Your task to perform on an android device: open app "Skype" (install if not already installed) and go to login screen Image 0: 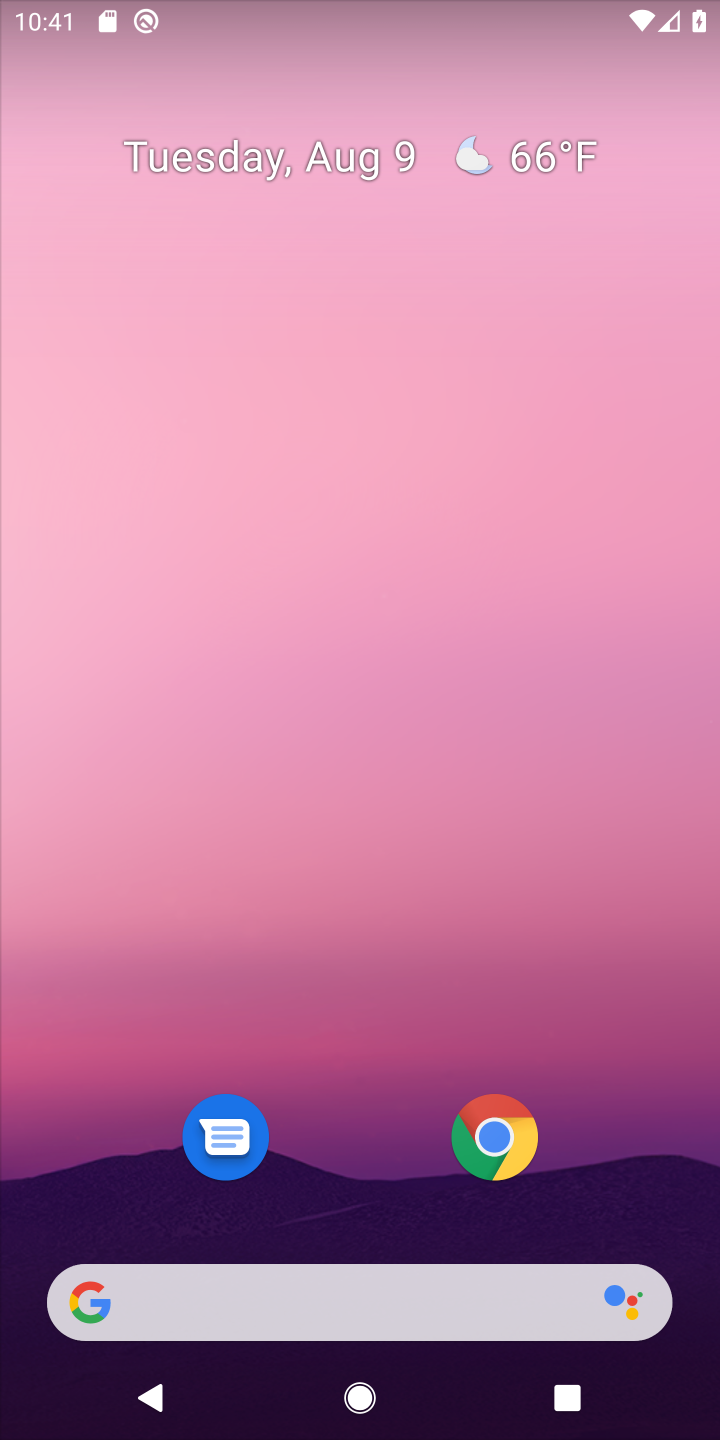
Step 0: drag from (368, 822) to (316, 103)
Your task to perform on an android device: open app "Skype" (install if not already installed) and go to login screen Image 1: 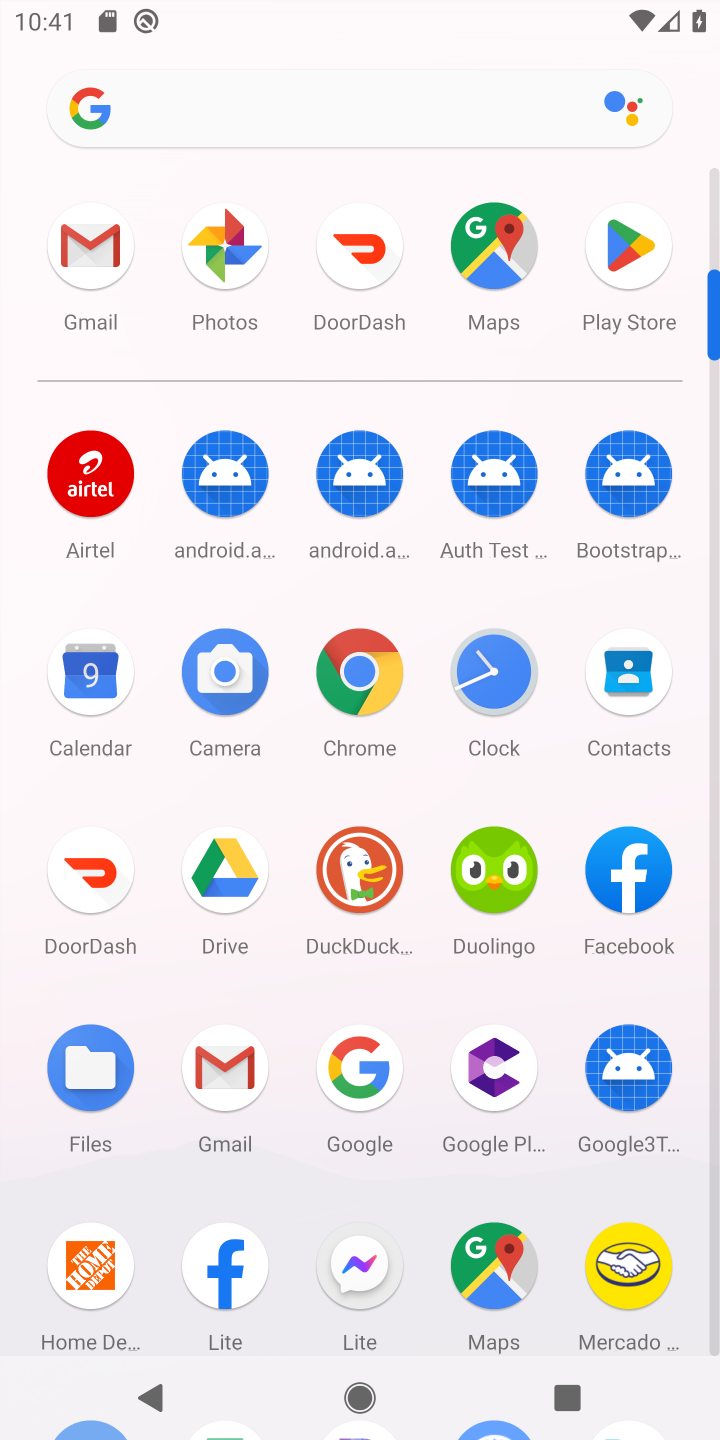
Step 1: click (595, 252)
Your task to perform on an android device: open app "Skype" (install if not already installed) and go to login screen Image 2: 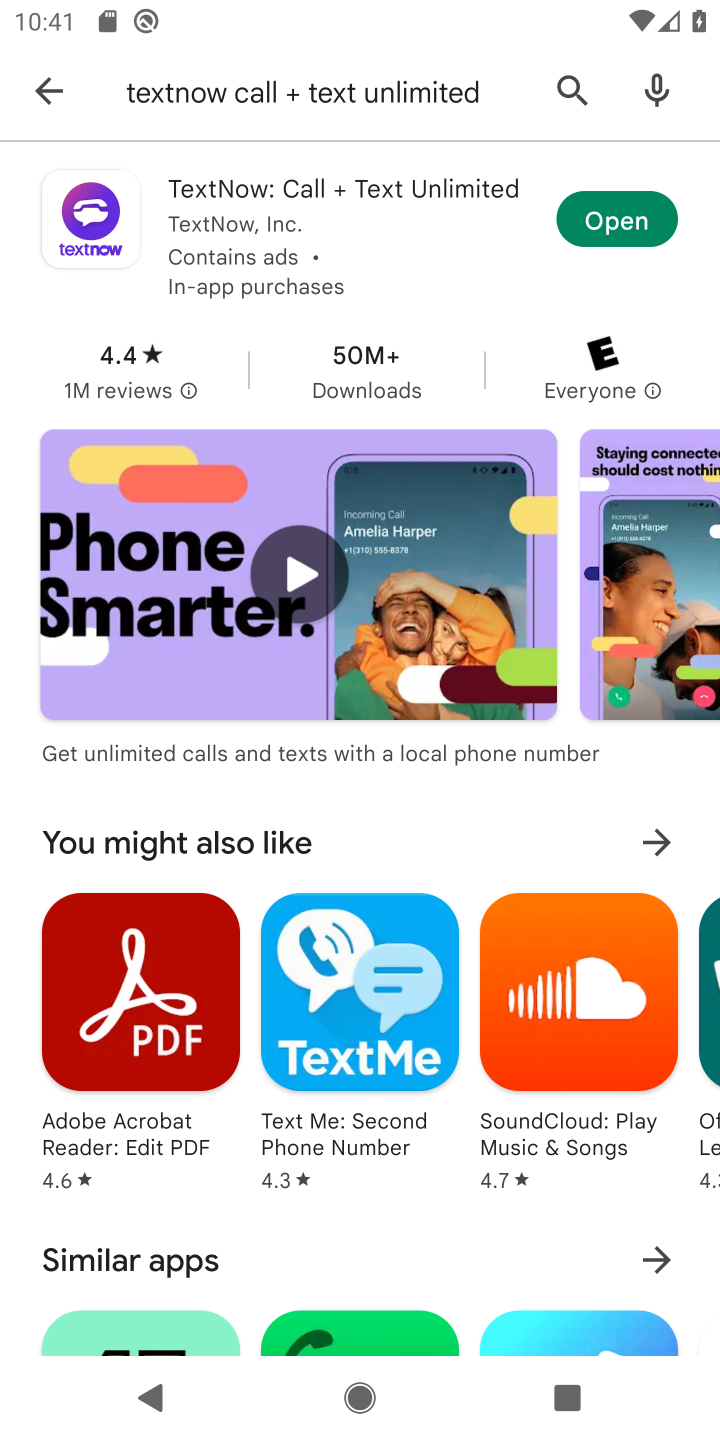
Step 2: click (570, 88)
Your task to perform on an android device: open app "Skype" (install if not already installed) and go to login screen Image 3: 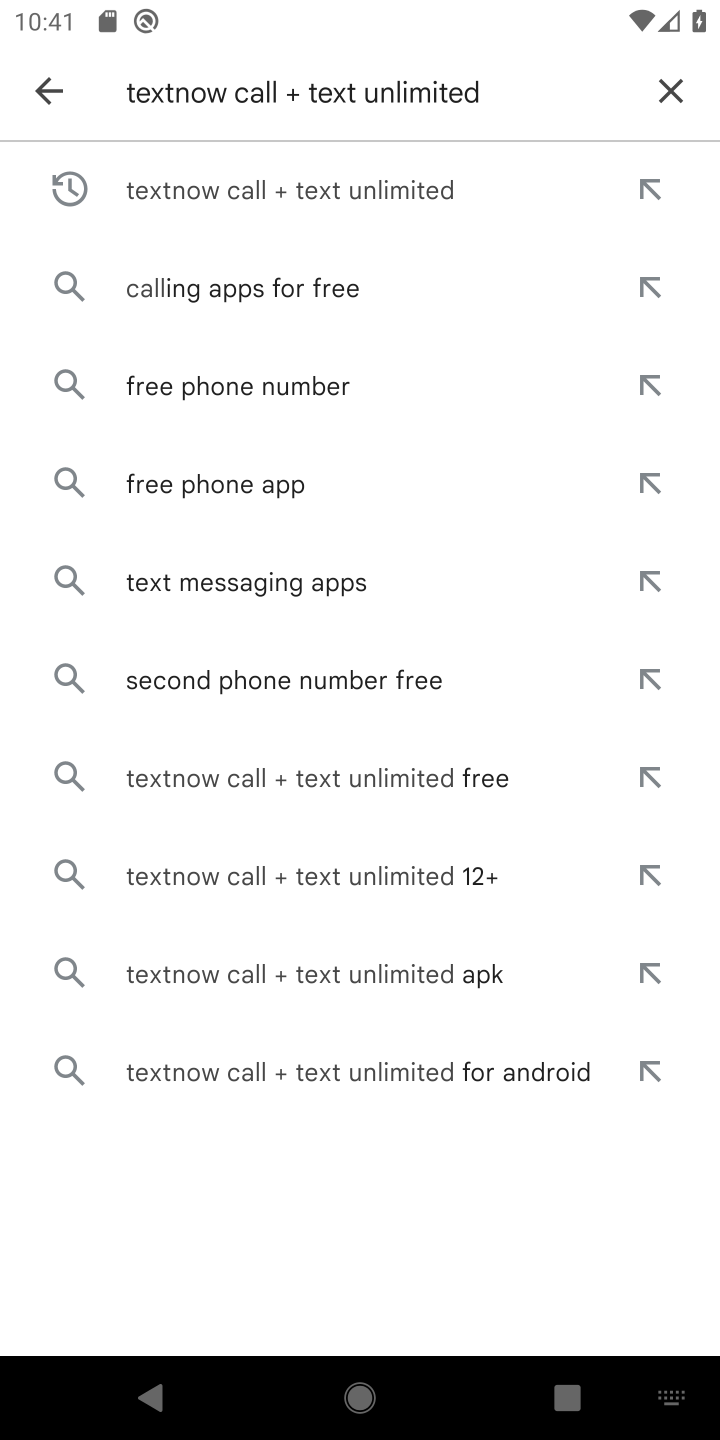
Step 3: click (661, 79)
Your task to perform on an android device: open app "Skype" (install if not already installed) and go to login screen Image 4: 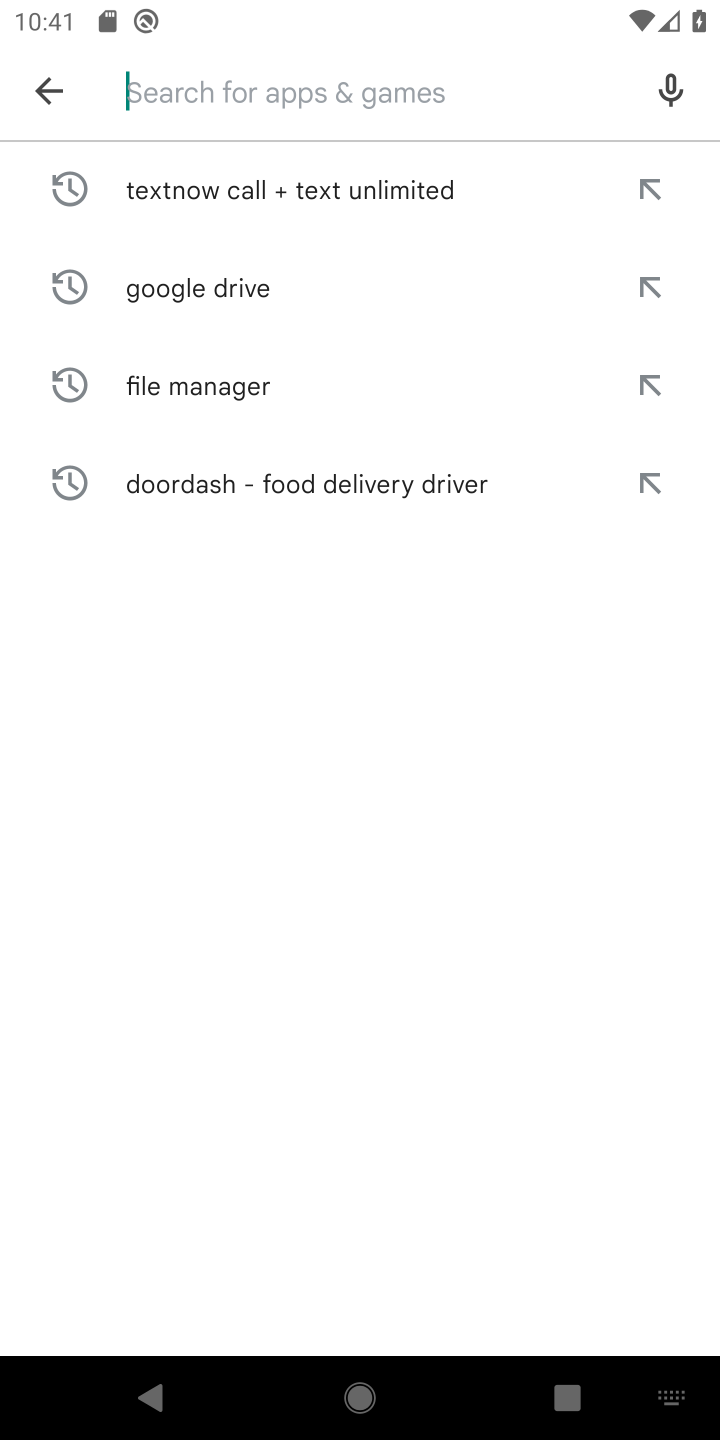
Step 4: type "Skype"
Your task to perform on an android device: open app "Skype" (install if not already installed) and go to login screen Image 5: 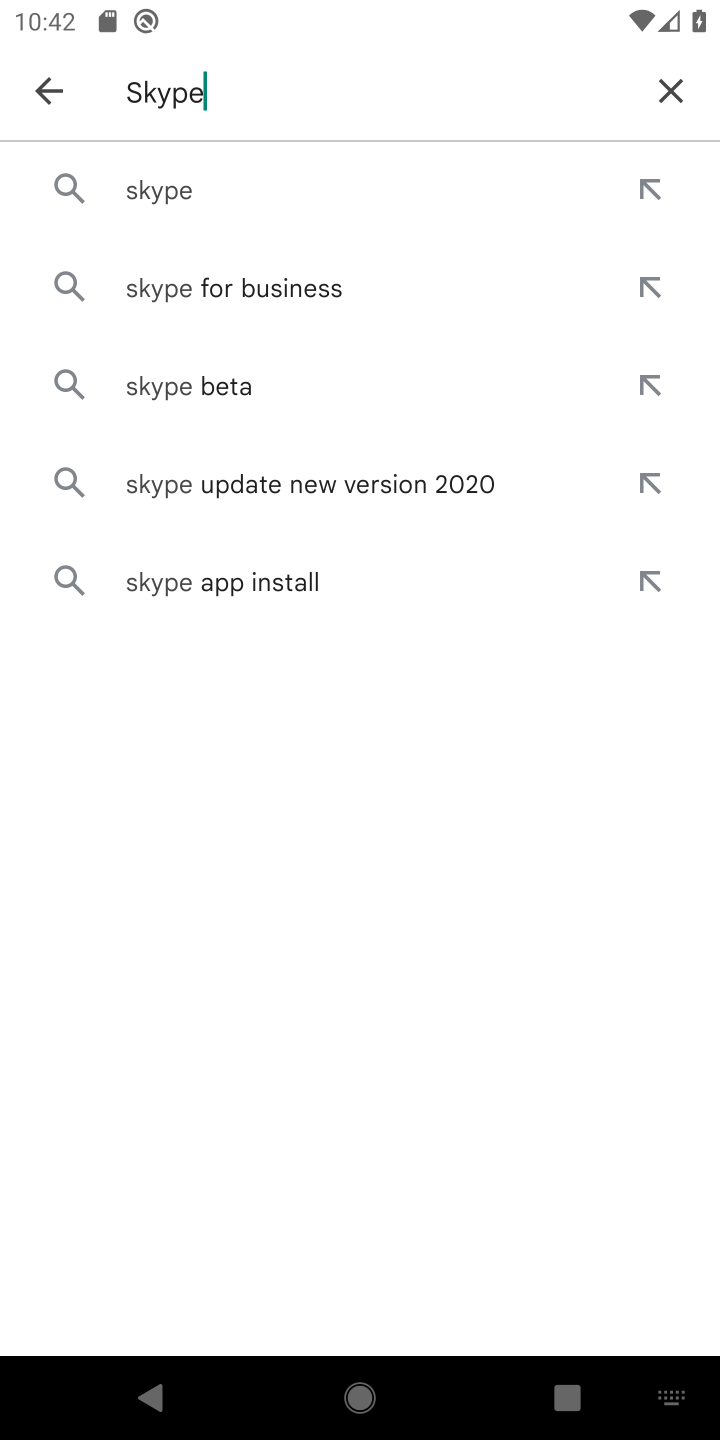
Step 5: click (169, 207)
Your task to perform on an android device: open app "Skype" (install if not already installed) and go to login screen Image 6: 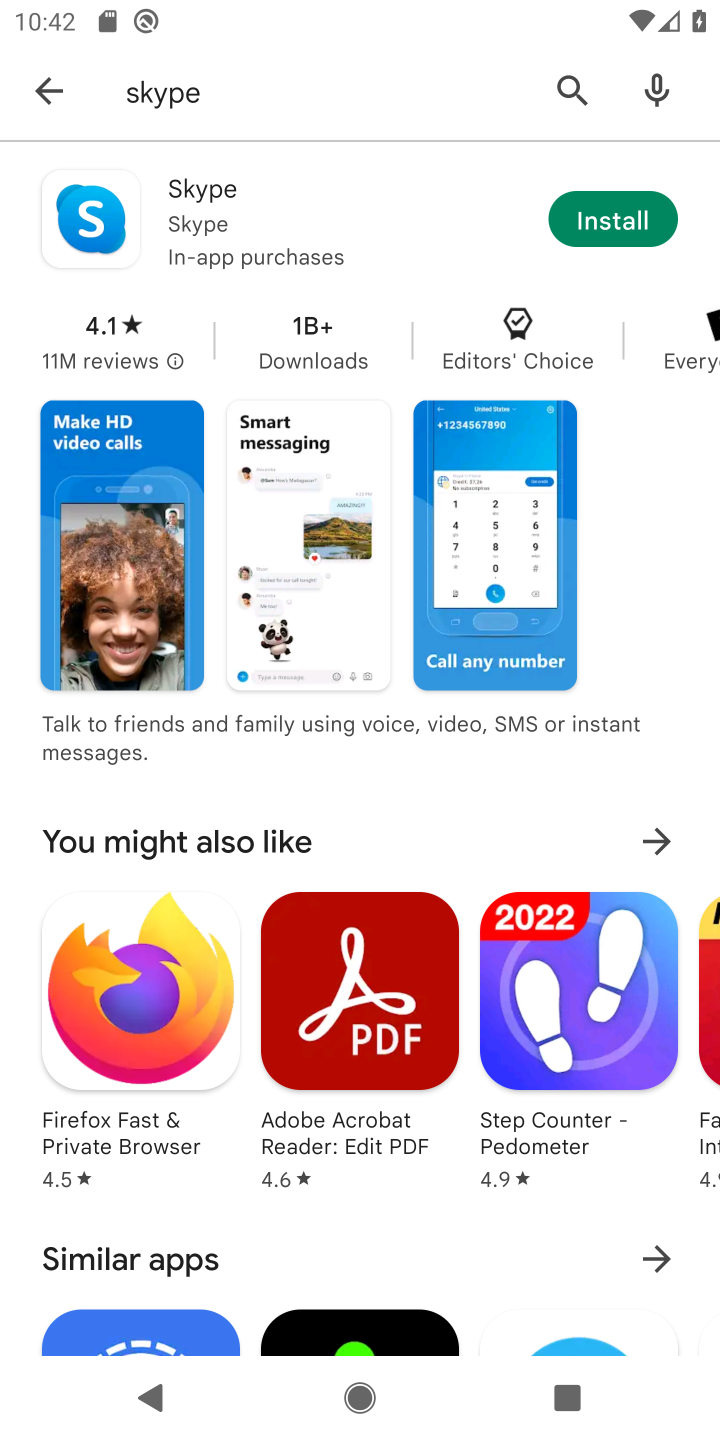
Step 6: click (647, 214)
Your task to perform on an android device: open app "Skype" (install if not already installed) and go to login screen Image 7: 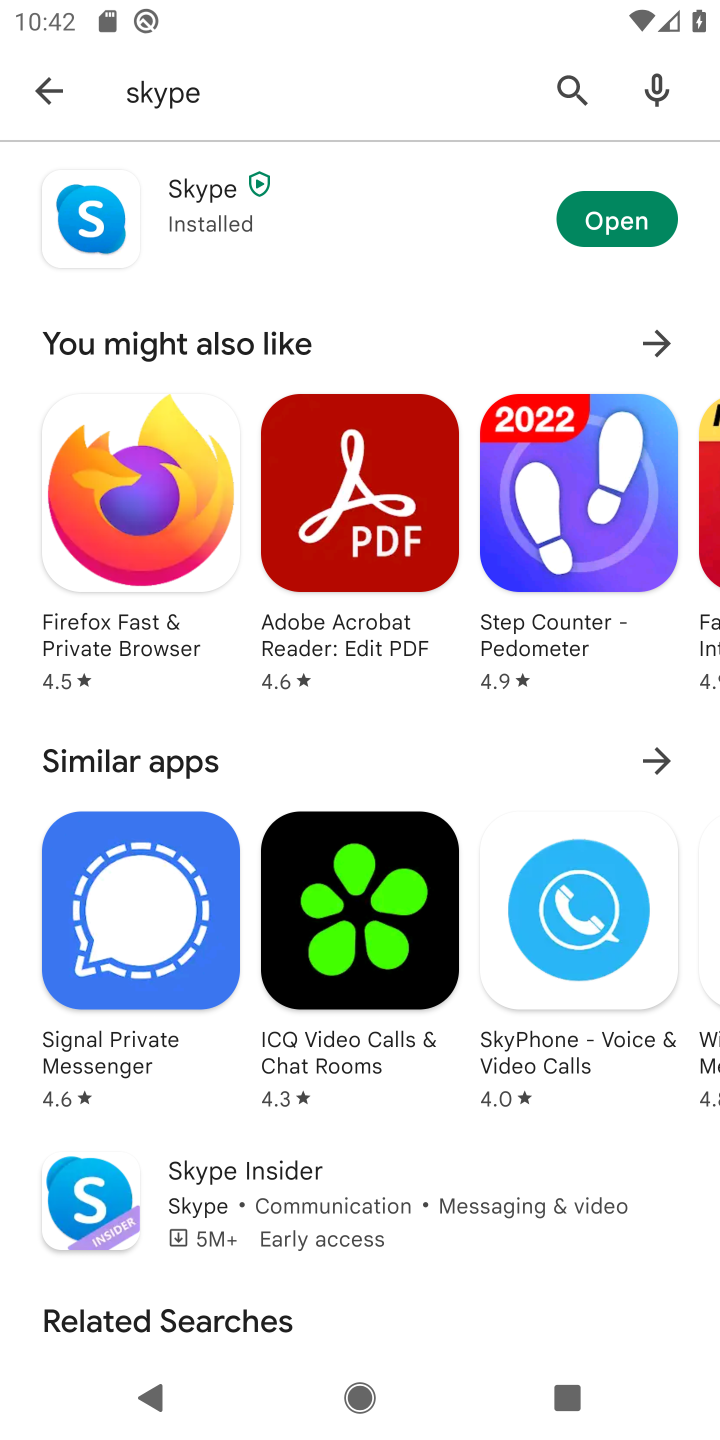
Step 7: click (619, 217)
Your task to perform on an android device: open app "Skype" (install if not already installed) and go to login screen Image 8: 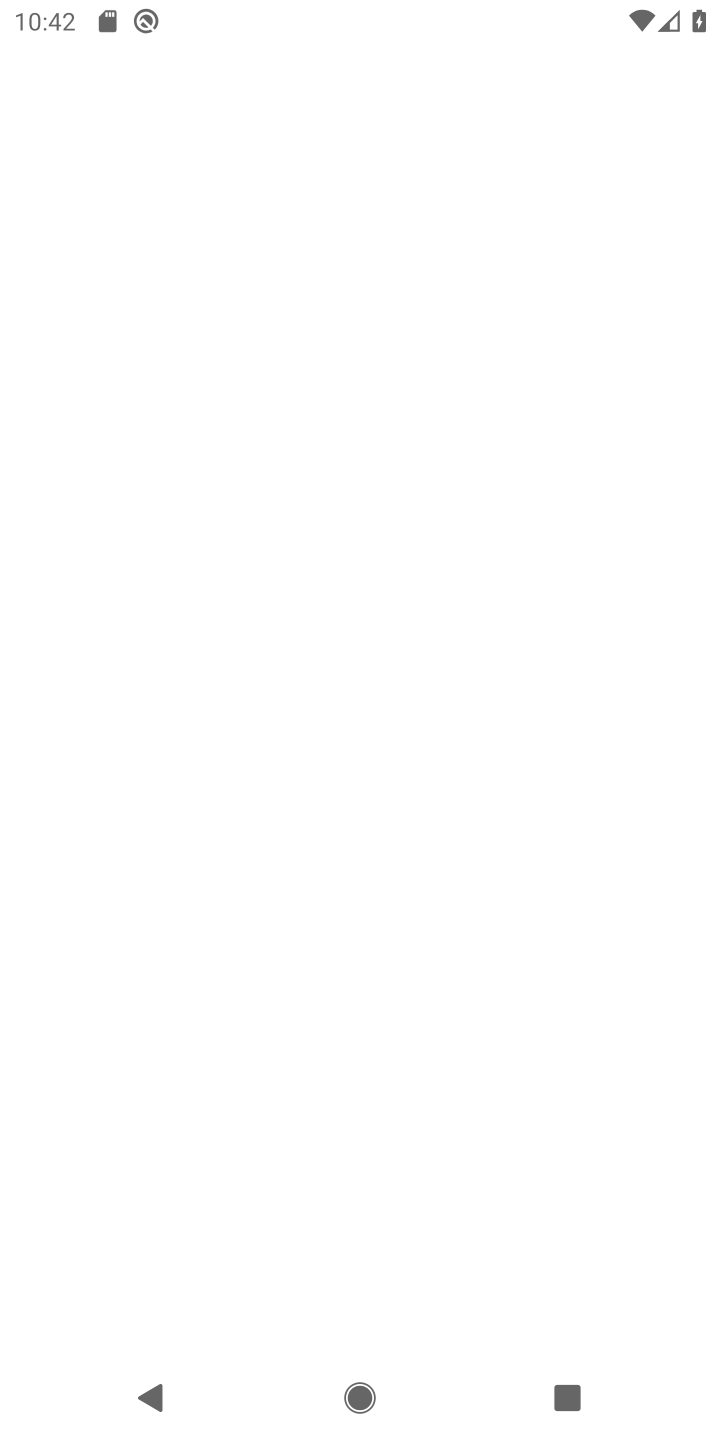
Step 8: task complete